Your task to perform on an android device: Show me recent news Image 0: 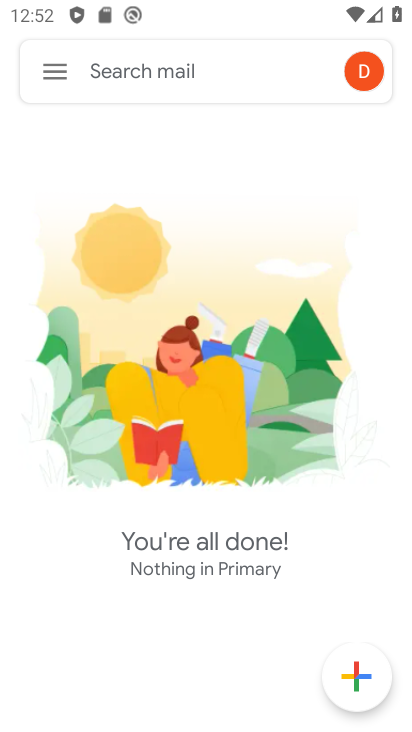
Step 0: press home button
Your task to perform on an android device: Show me recent news Image 1: 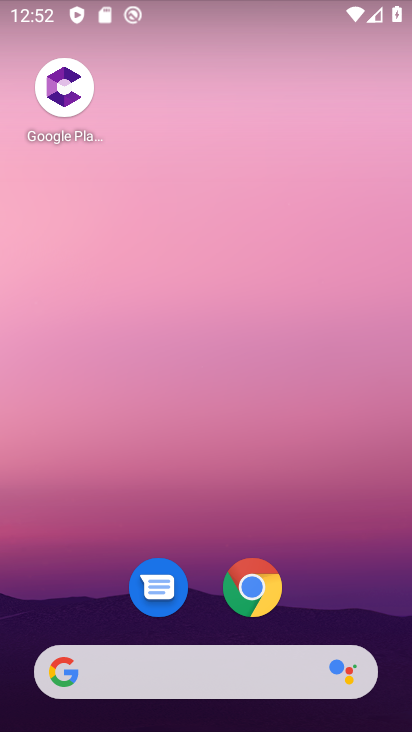
Step 1: task complete